Your task to perform on an android device: Open Maps and search for coffee Image 0: 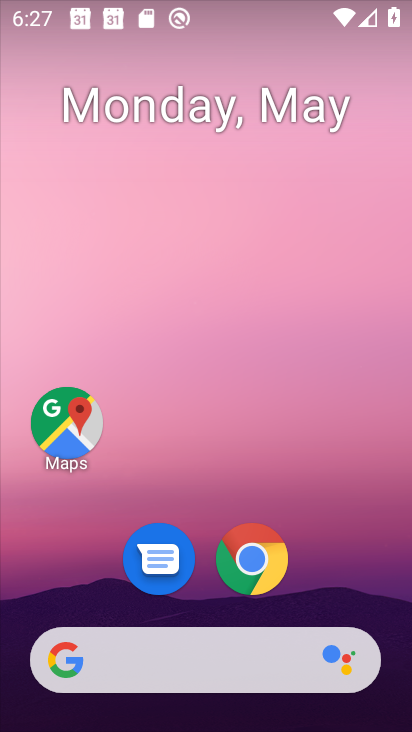
Step 0: drag from (400, 624) to (374, 117)
Your task to perform on an android device: Open Maps and search for coffee Image 1: 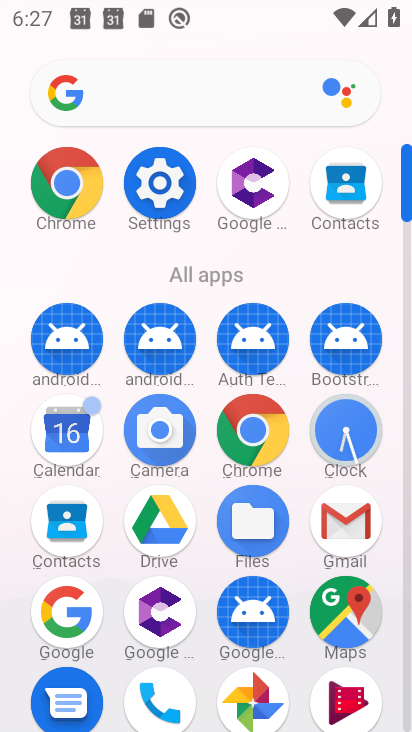
Step 1: click (326, 615)
Your task to perform on an android device: Open Maps and search for coffee Image 2: 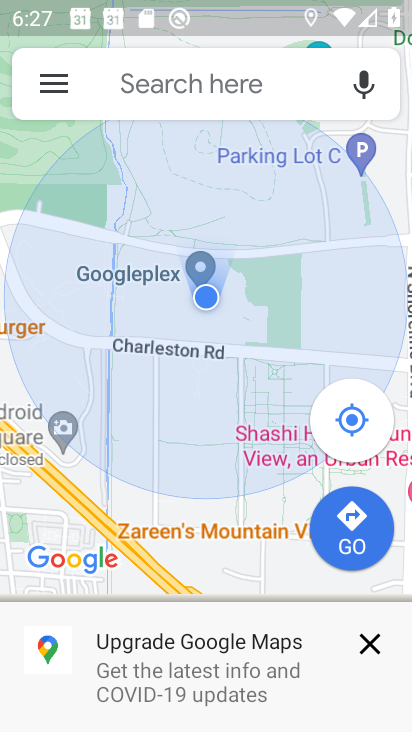
Step 2: click (163, 89)
Your task to perform on an android device: Open Maps and search for coffee Image 3: 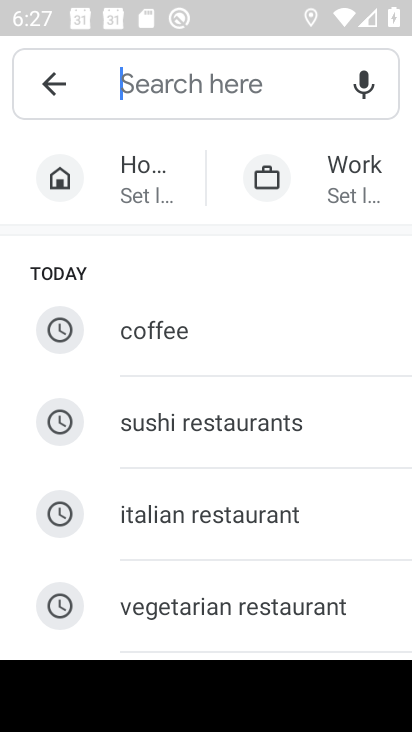
Step 3: click (158, 346)
Your task to perform on an android device: Open Maps and search for coffee Image 4: 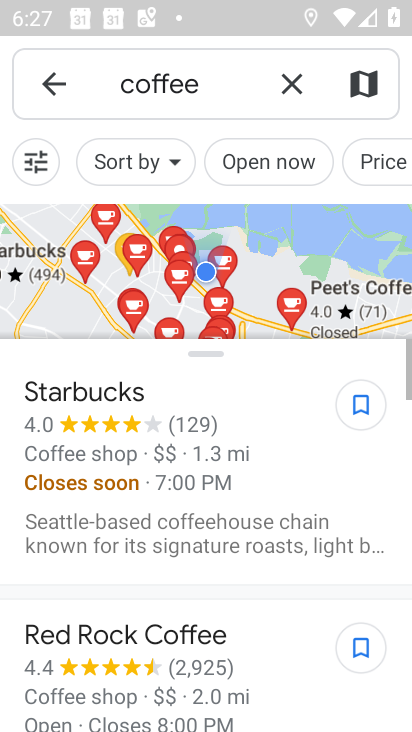
Step 4: task complete